Your task to perform on an android device: Open ESPN.com Image 0: 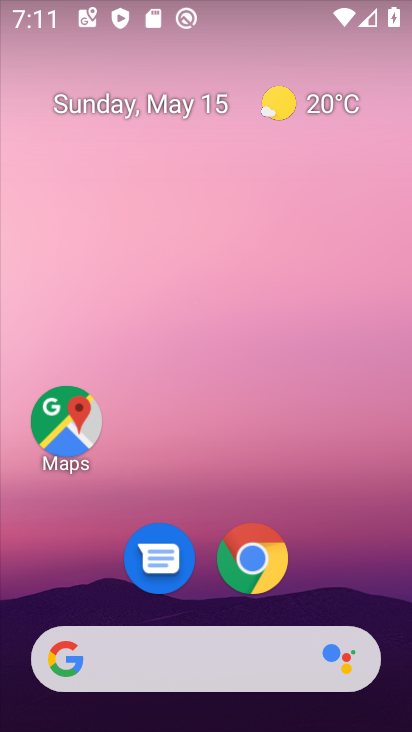
Step 0: click (251, 572)
Your task to perform on an android device: Open ESPN.com Image 1: 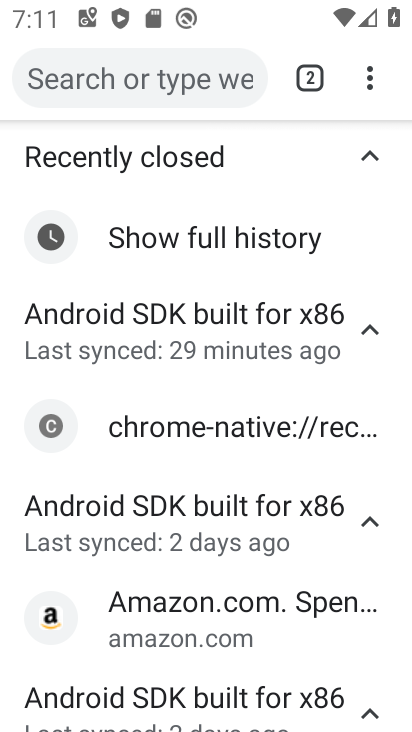
Step 1: click (366, 80)
Your task to perform on an android device: Open ESPN.com Image 2: 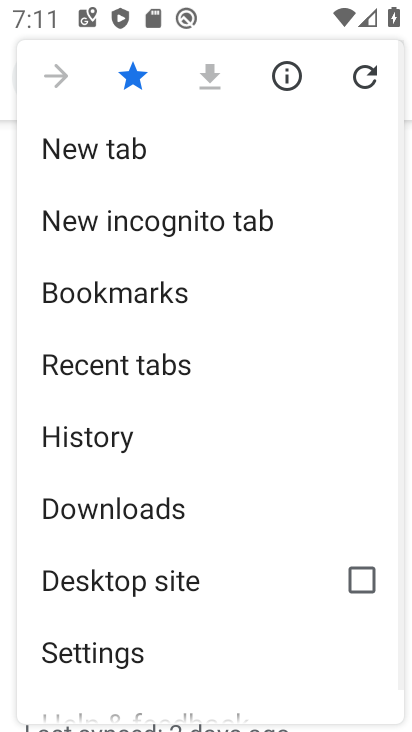
Step 2: click (99, 139)
Your task to perform on an android device: Open ESPN.com Image 3: 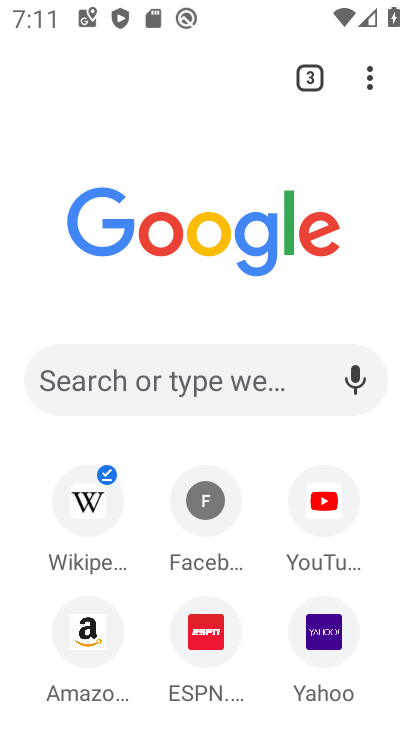
Step 3: click (204, 654)
Your task to perform on an android device: Open ESPN.com Image 4: 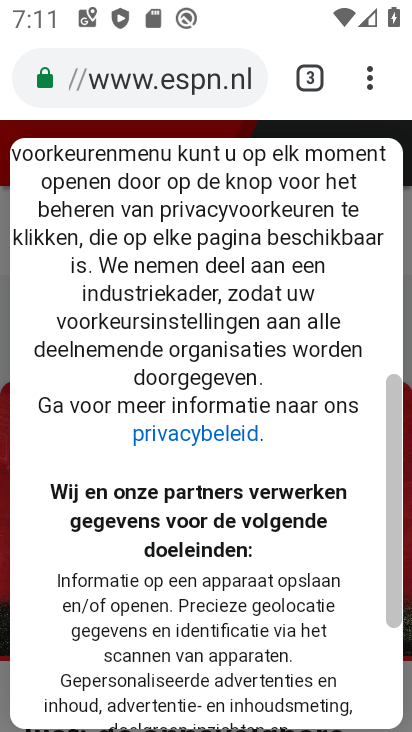
Step 4: task complete